Your task to perform on an android device: open chrome and create a bookmark for the current page Image 0: 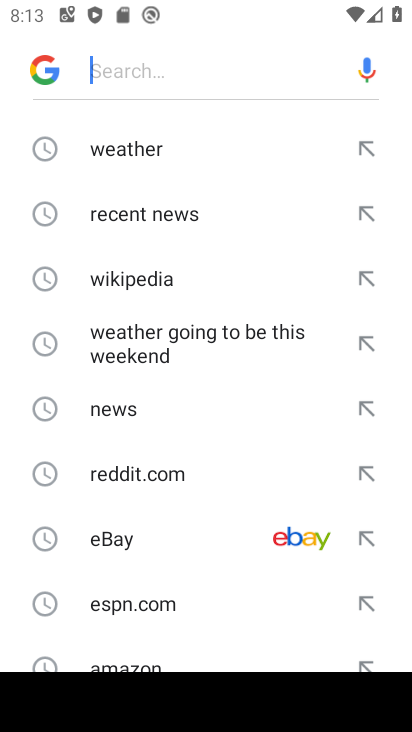
Step 0: press home button
Your task to perform on an android device: open chrome and create a bookmark for the current page Image 1: 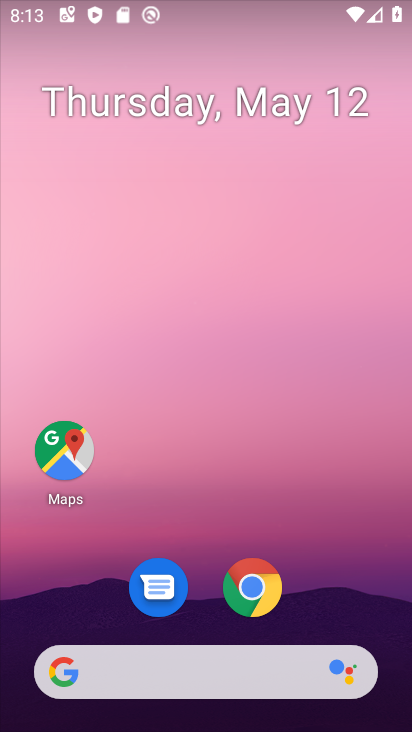
Step 1: drag from (361, 593) to (343, 320)
Your task to perform on an android device: open chrome and create a bookmark for the current page Image 2: 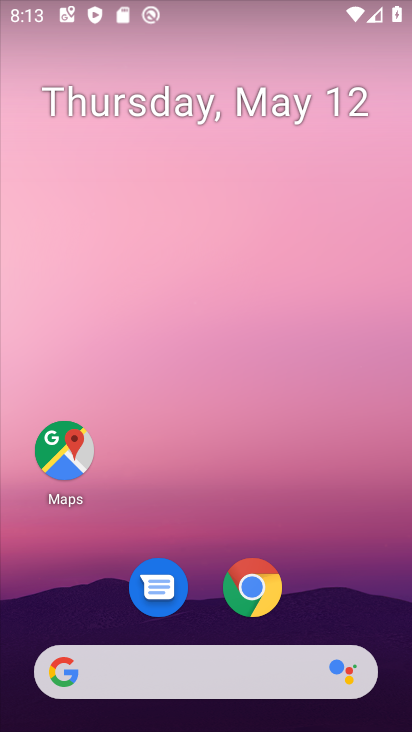
Step 2: drag from (319, 510) to (299, 202)
Your task to perform on an android device: open chrome and create a bookmark for the current page Image 3: 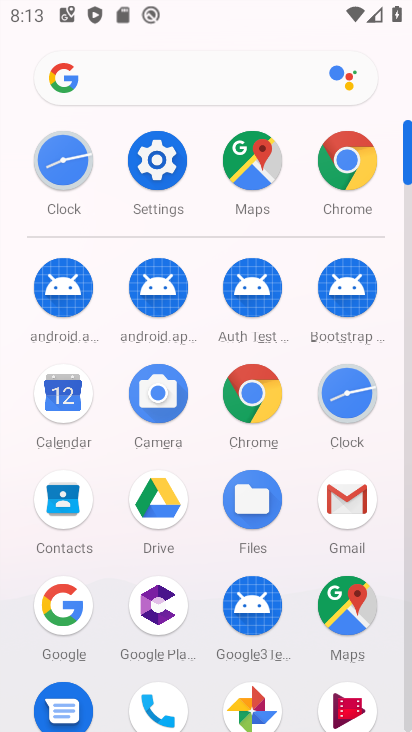
Step 3: click (229, 403)
Your task to perform on an android device: open chrome and create a bookmark for the current page Image 4: 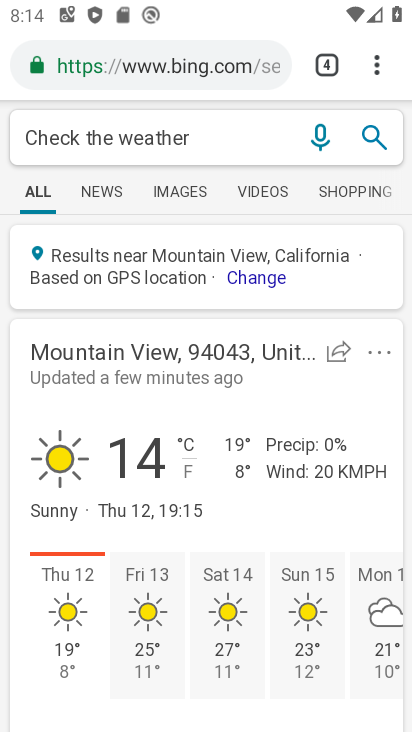
Step 4: click (353, 60)
Your task to perform on an android device: open chrome and create a bookmark for the current page Image 5: 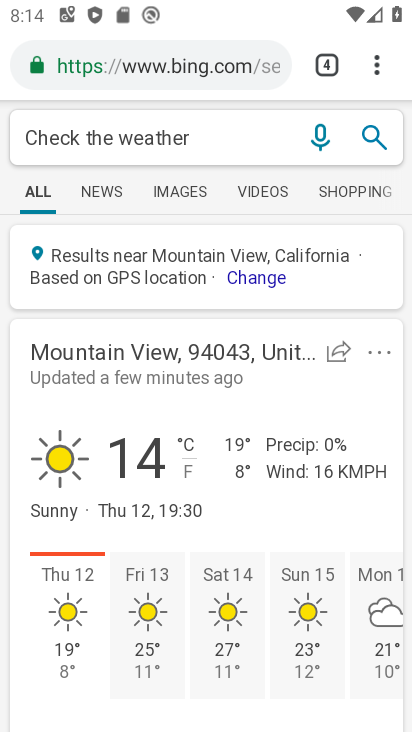
Step 5: click (398, 66)
Your task to perform on an android device: open chrome and create a bookmark for the current page Image 6: 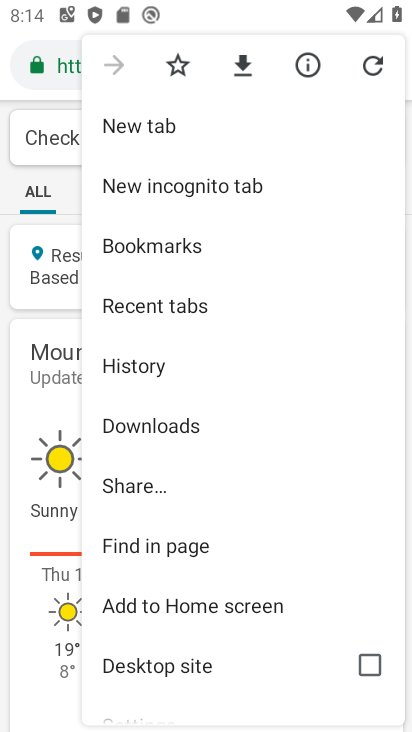
Step 6: click (74, 186)
Your task to perform on an android device: open chrome and create a bookmark for the current page Image 7: 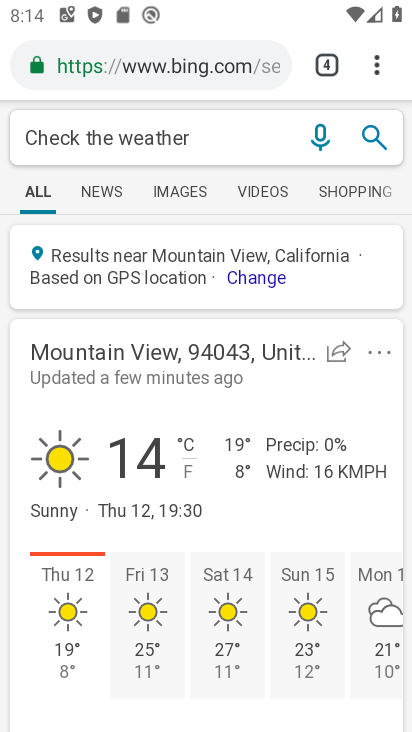
Step 7: click (359, 65)
Your task to perform on an android device: open chrome and create a bookmark for the current page Image 8: 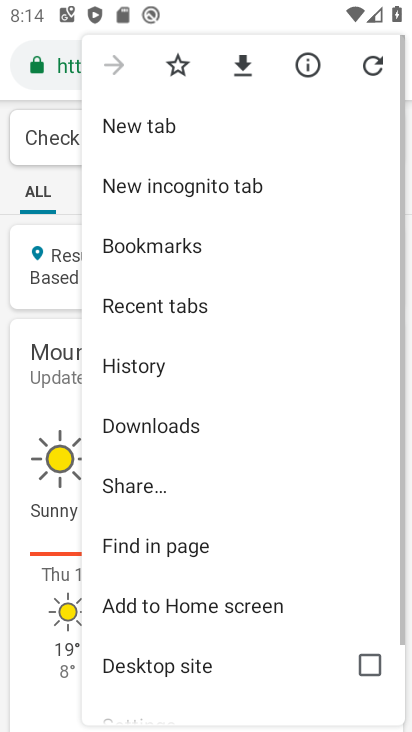
Step 8: click (182, 52)
Your task to perform on an android device: open chrome and create a bookmark for the current page Image 9: 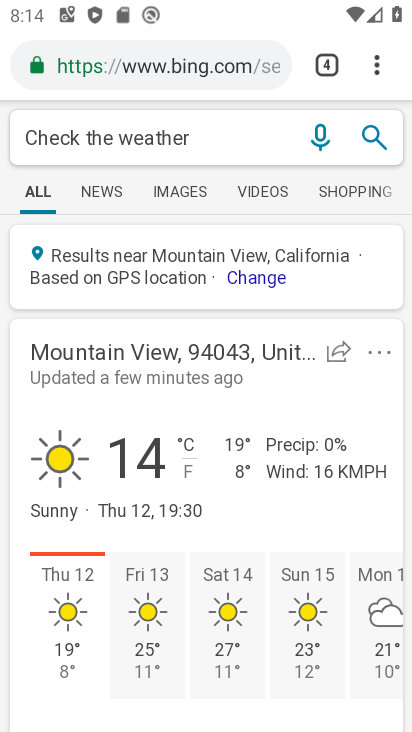
Step 9: task complete